Your task to perform on an android device: Open sound settings Image 0: 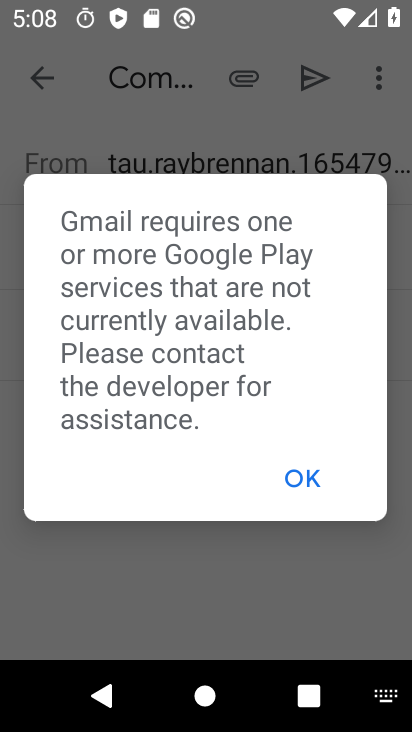
Step 0: press home button
Your task to perform on an android device: Open sound settings Image 1: 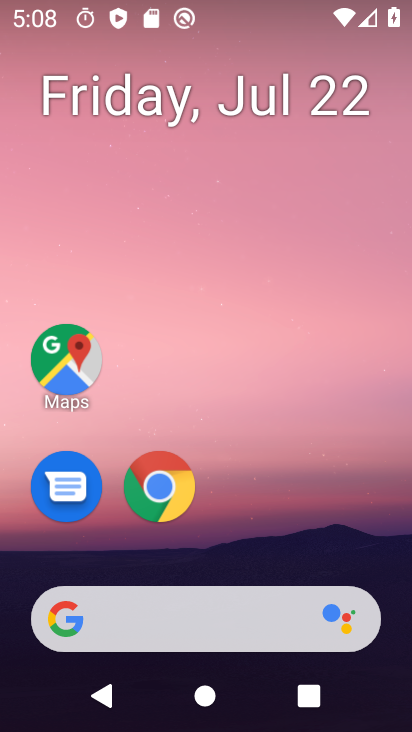
Step 1: drag from (326, 525) to (276, 22)
Your task to perform on an android device: Open sound settings Image 2: 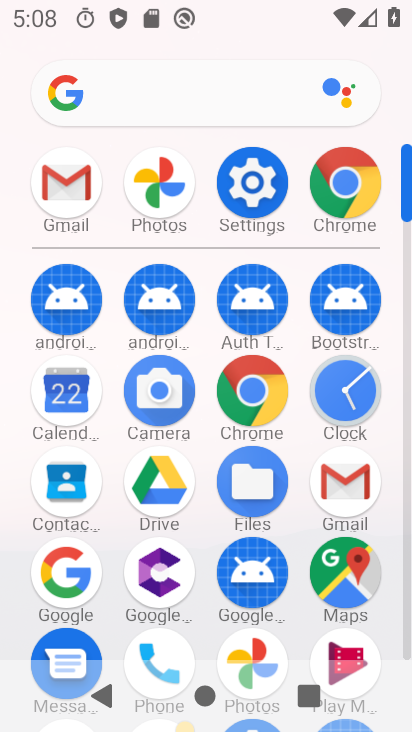
Step 2: click (255, 195)
Your task to perform on an android device: Open sound settings Image 3: 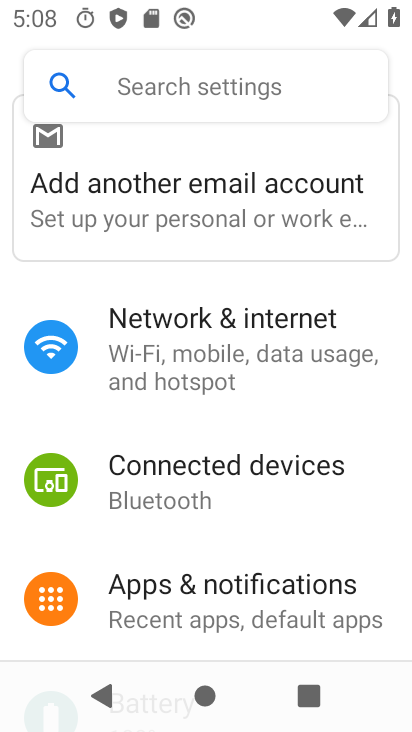
Step 3: drag from (222, 605) to (185, 133)
Your task to perform on an android device: Open sound settings Image 4: 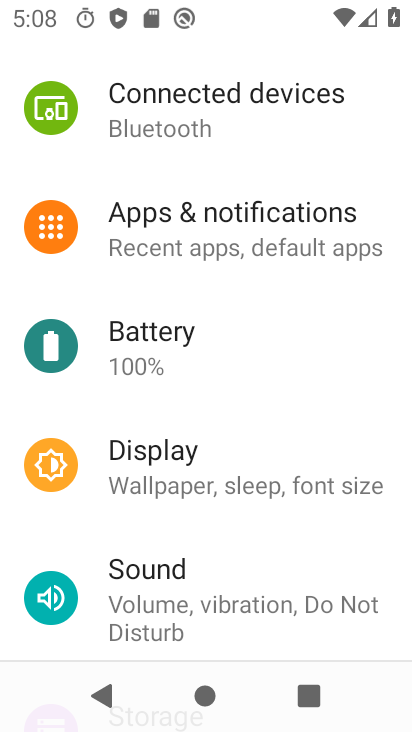
Step 4: click (284, 590)
Your task to perform on an android device: Open sound settings Image 5: 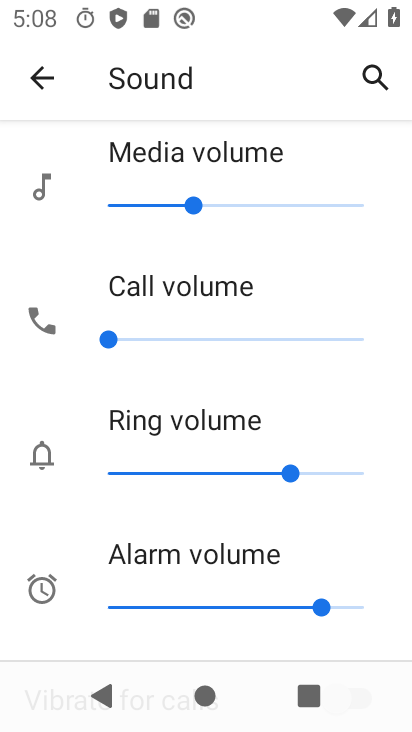
Step 5: task complete